Your task to perform on an android device: Go to location settings Image 0: 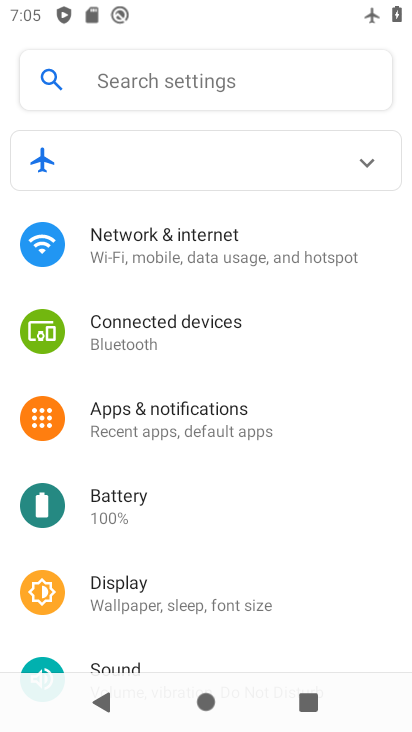
Step 0: press home button
Your task to perform on an android device: Go to location settings Image 1: 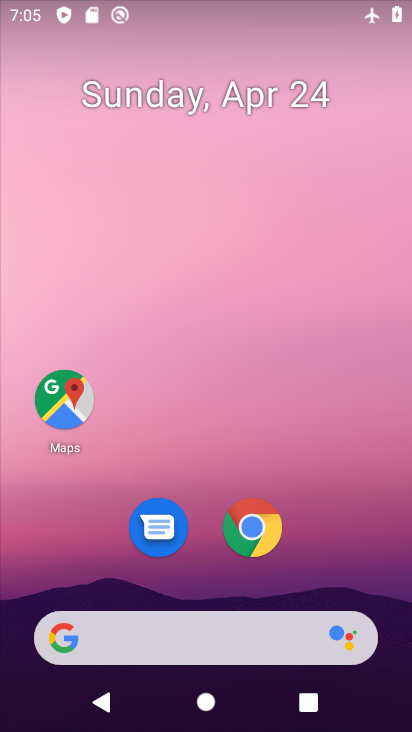
Step 1: drag from (356, 591) to (327, 62)
Your task to perform on an android device: Go to location settings Image 2: 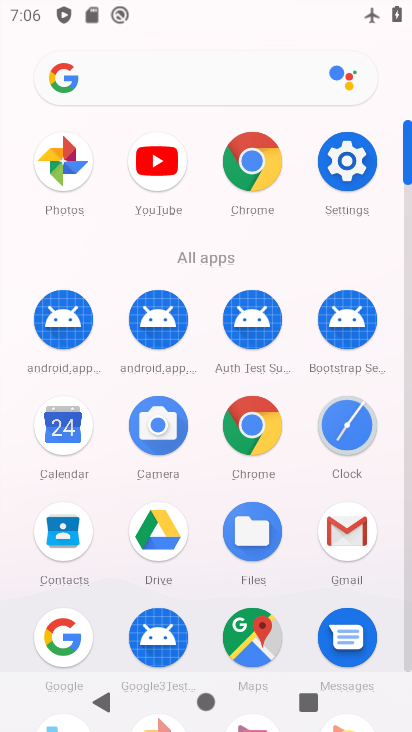
Step 2: click (350, 179)
Your task to perform on an android device: Go to location settings Image 3: 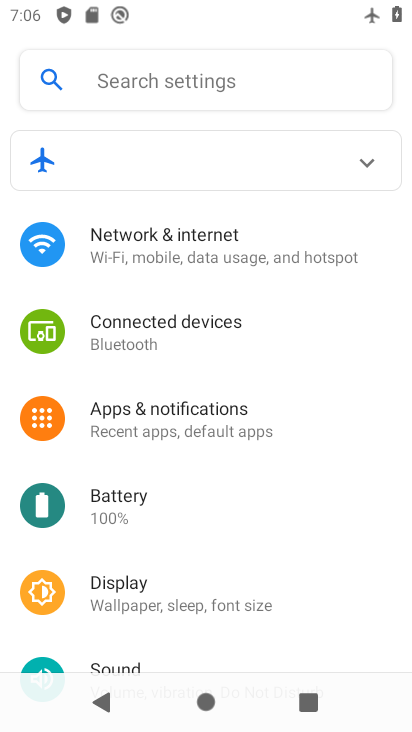
Step 3: drag from (192, 621) to (302, 210)
Your task to perform on an android device: Go to location settings Image 4: 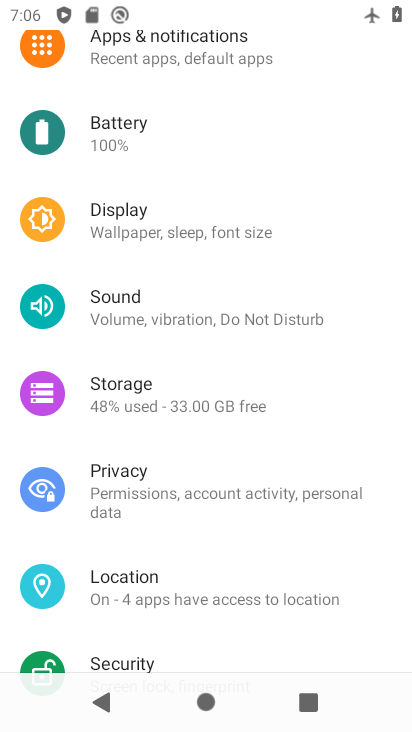
Step 4: click (166, 595)
Your task to perform on an android device: Go to location settings Image 5: 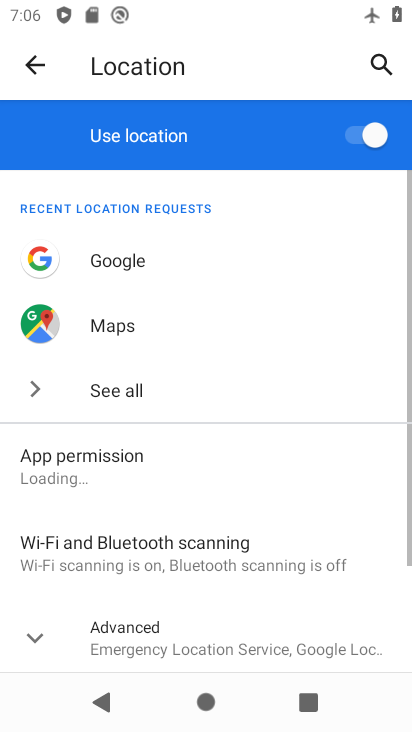
Step 5: task complete